Your task to perform on an android device: Open the Play Movies app and select the watchlist tab. Image 0: 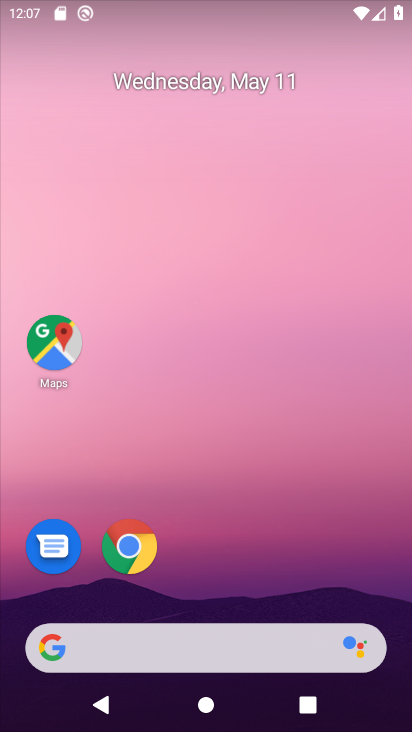
Step 0: drag from (303, 479) to (312, 207)
Your task to perform on an android device: Open the Play Movies app and select the watchlist tab. Image 1: 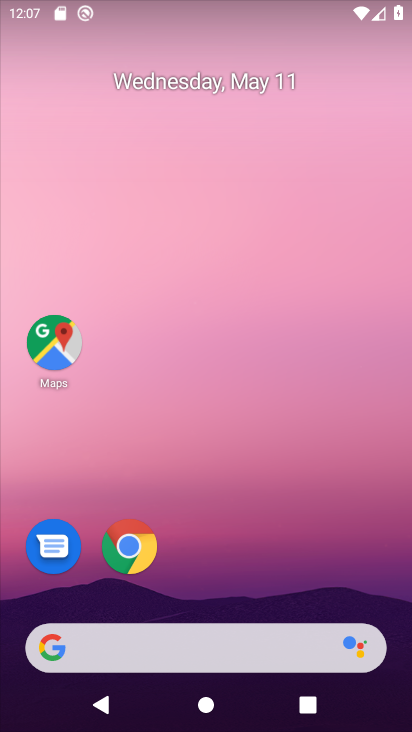
Step 1: drag from (270, 470) to (312, 187)
Your task to perform on an android device: Open the Play Movies app and select the watchlist tab. Image 2: 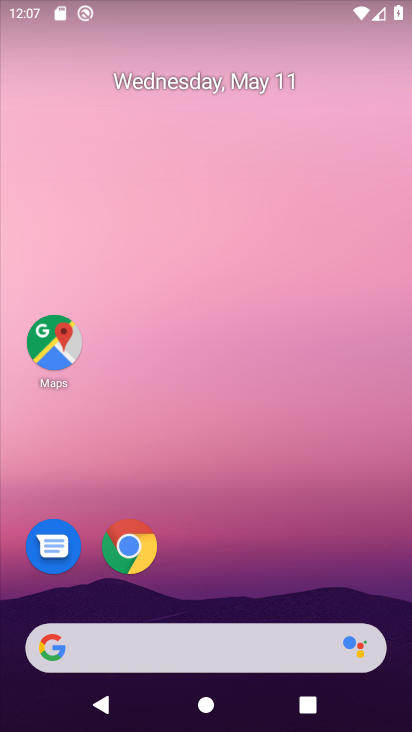
Step 2: drag from (221, 569) to (256, 199)
Your task to perform on an android device: Open the Play Movies app and select the watchlist tab. Image 3: 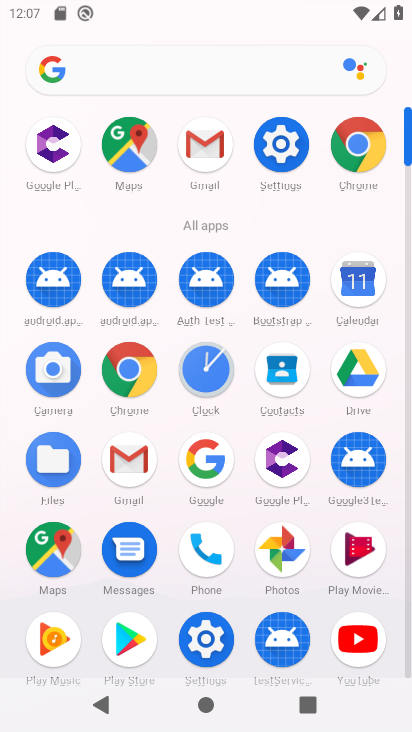
Step 3: click (355, 542)
Your task to perform on an android device: Open the Play Movies app and select the watchlist tab. Image 4: 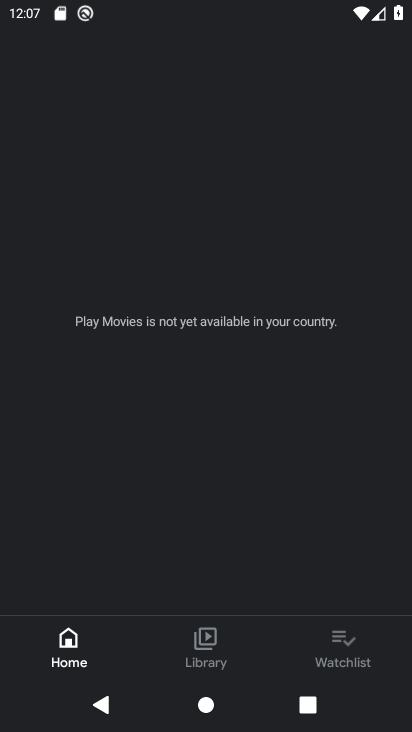
Step 4: click (346, 639)
Your task to perform on an android device: Open the Play Movies app and select the watchlist tab. Image 5: 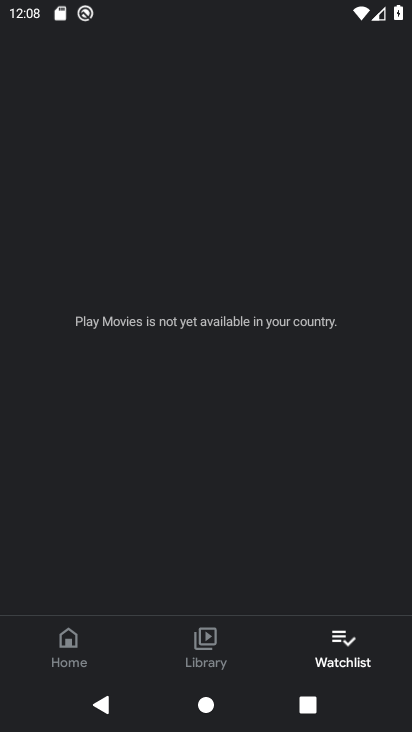
Step 5: task complete